Your task to perform on an android device: Open Google Image 0: 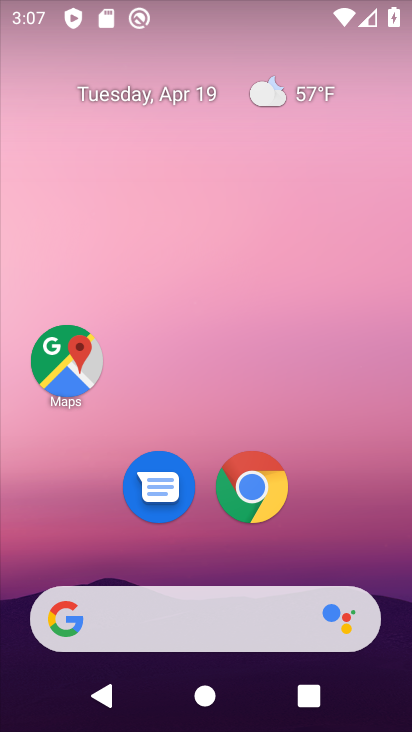
Step 0: drag from (341, 547) to (355, 178)
Your task to perform on an android device: Open Google Image 1: 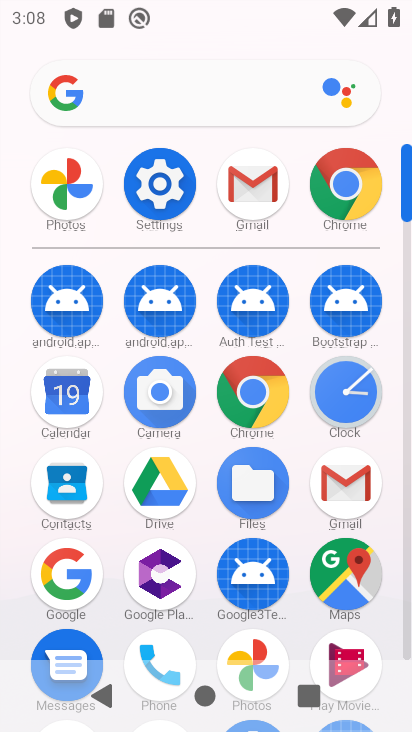
Step 1: click (71, 579)
Your task to perform on an android device: Open Google Image 2: 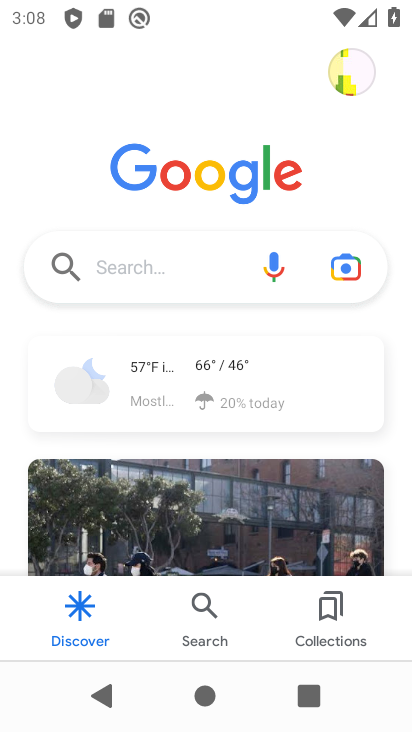
Step 2: task complete